Your task to perform on an android device: toggle sleep mode Image 0: 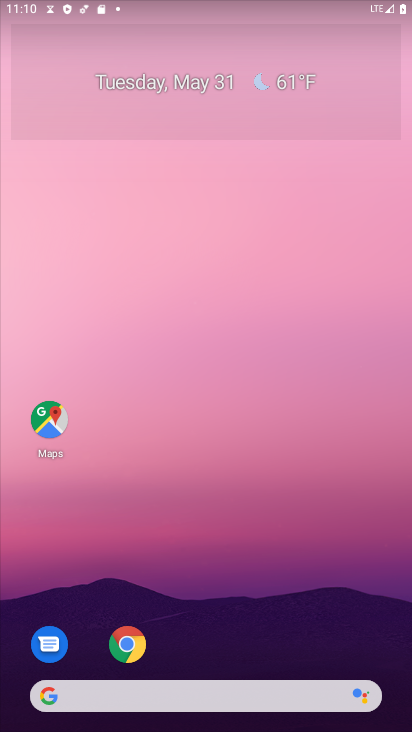
Step 0: drag from (211, 562) to (281, 101)
Your task to perform on an android device: toggle sleep mode Image 1: 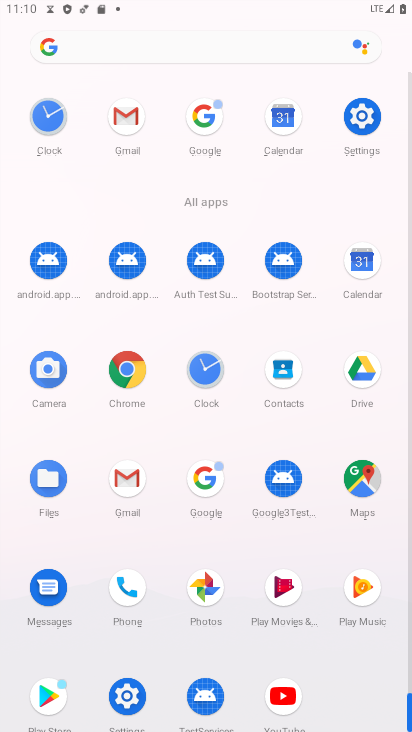
Step 1: click (355, 116)
Your task to perform on an android device: toggle sleep mode Image 2: 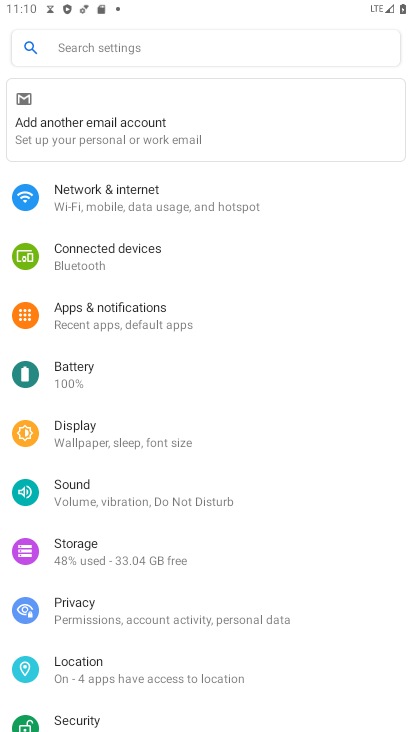
Step 2: click (168, 49)
Your task to perform on an android device: toggle sleep mode Image 3: 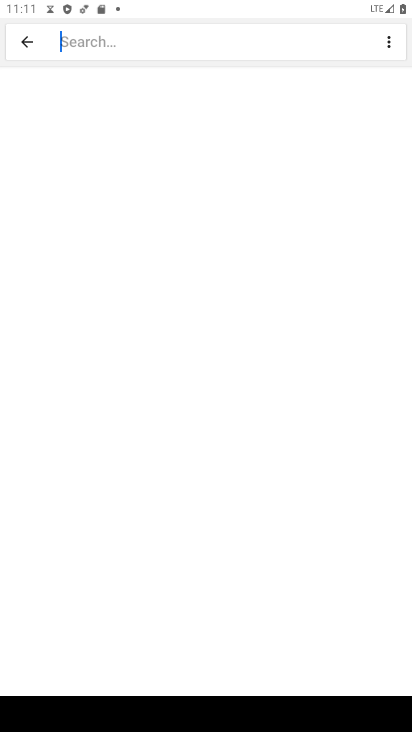
Step 3: click (159, 35)
Your task to perform on an android device: toggle sleep mode Image 4: 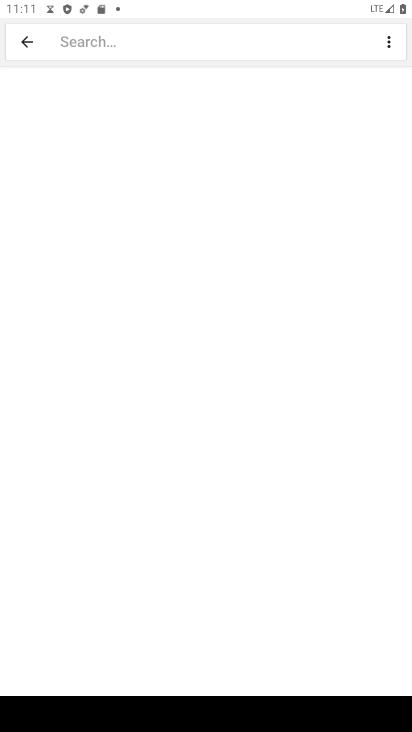
Step 4: type "sleep mode"
Your task to perform on an android device: toggle sleep mode Image 5: 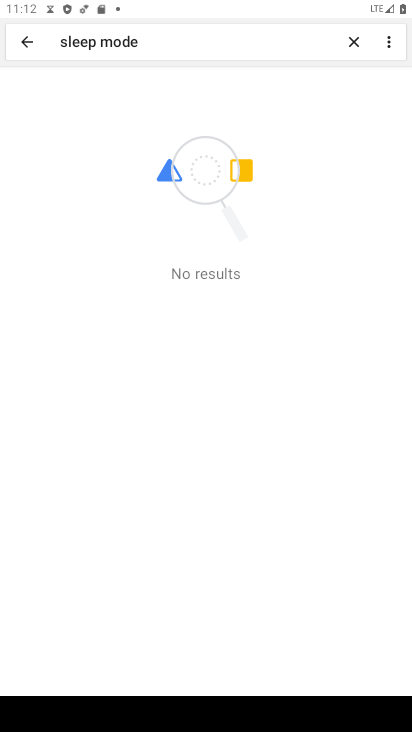
Step 5: task complete